Your task to perform on an android device: Open calendar and show me the third week of next month Image 0: 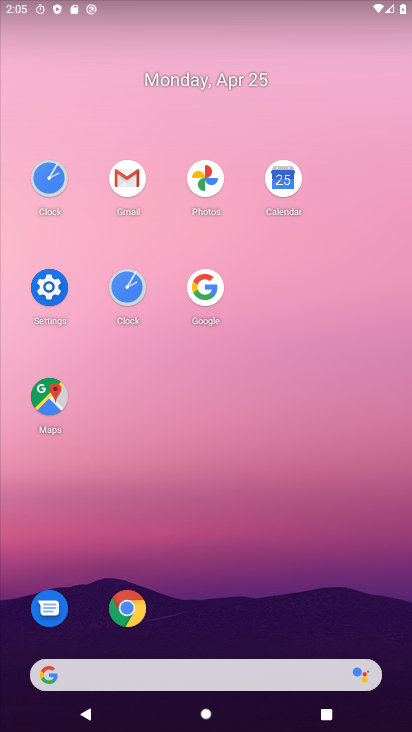
Step 0: click (287, 167)
Your task to perform on an android device: Open calendar and show me the third week of next month Image 1: 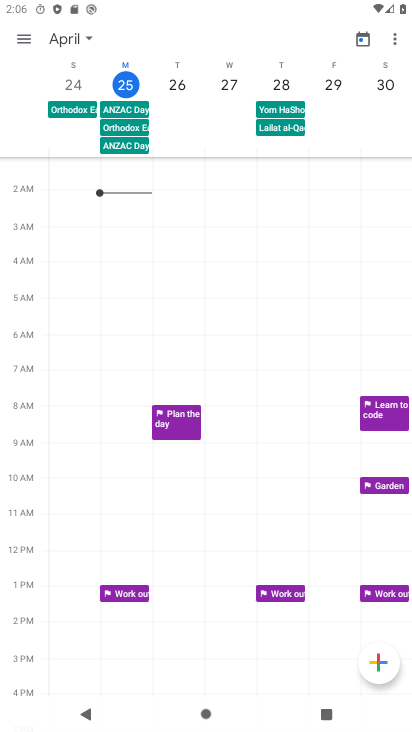
Step 1: click (23, 41)
Your task to perform on an android device: Open calendar and show me the third week of next month Image 2: 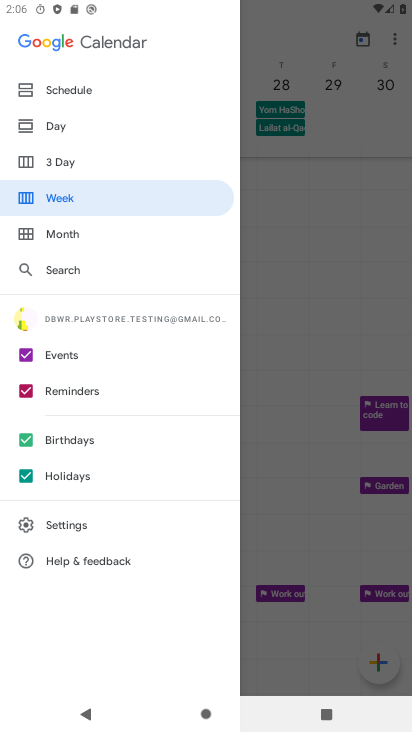
Step 2: click (78, 203)
Your task to perform on an android device: Open calendar and show me the third week of next month Image 3: 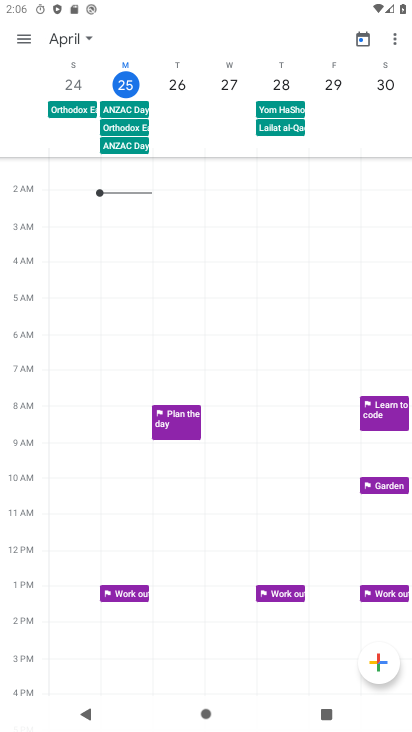
Step 3: task complete